Your task to perform on an android device: Open Chrome and go to the settings page Image 0: 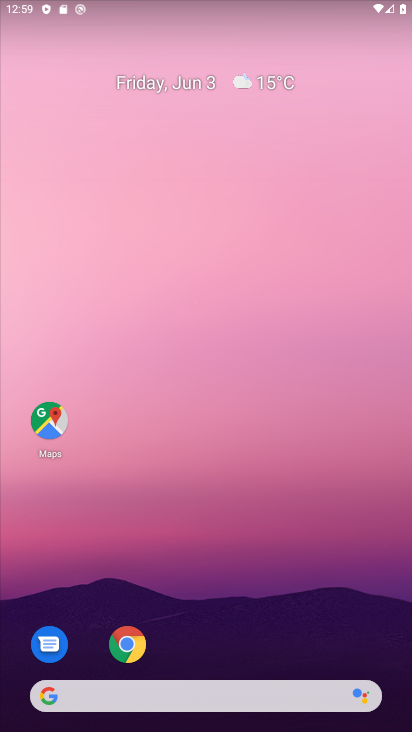
Step 0: click (131, 639)
Your task to perform on an android device: Open Chrome and go to the settings page Image 1: 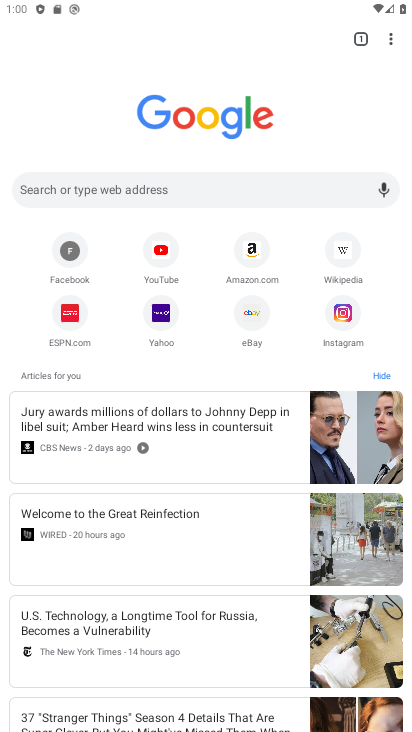
Step 1: click (394, 43)
Your task to perform on an android device: Open Chrome and go to the settings page Image 2: 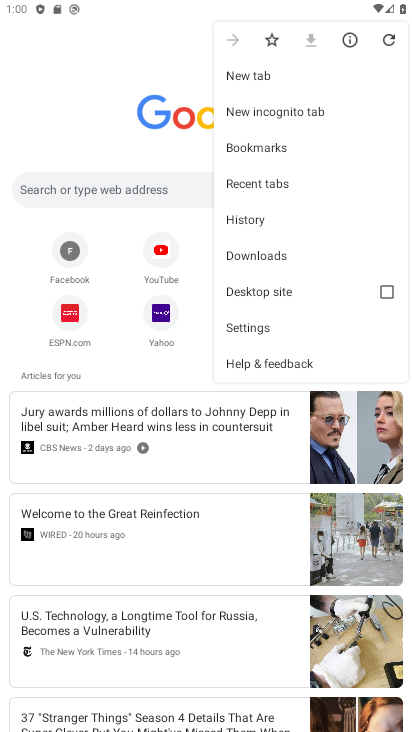
Step 2: click (275, 329)
Your task to perform on an android device: Open Chrome and go to the settings page Image 3: 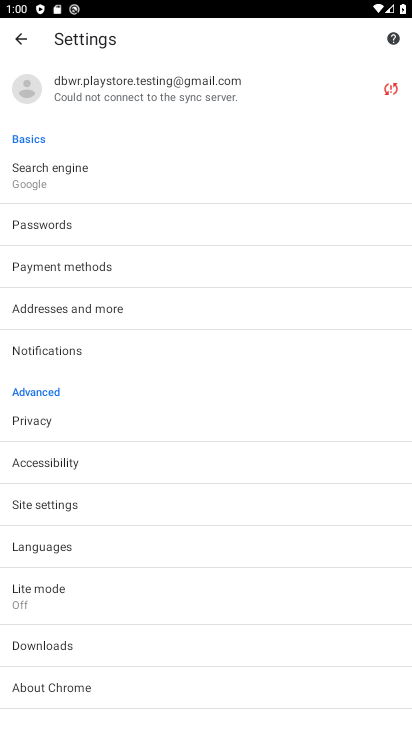
Step 3: task complete